Your task to perform on an android device: Show me popular games on the Play Store Image 0: 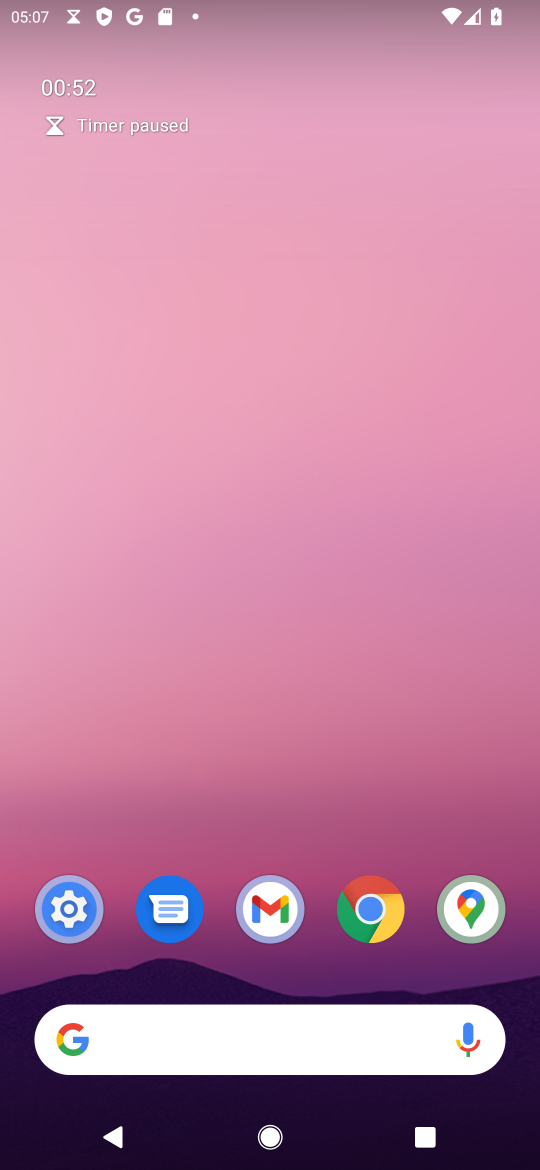
Step 0: drag from (254, 1042) to (460, 235)
Your task to perform on an android device: Show me popular games on the Play Store Image 1: 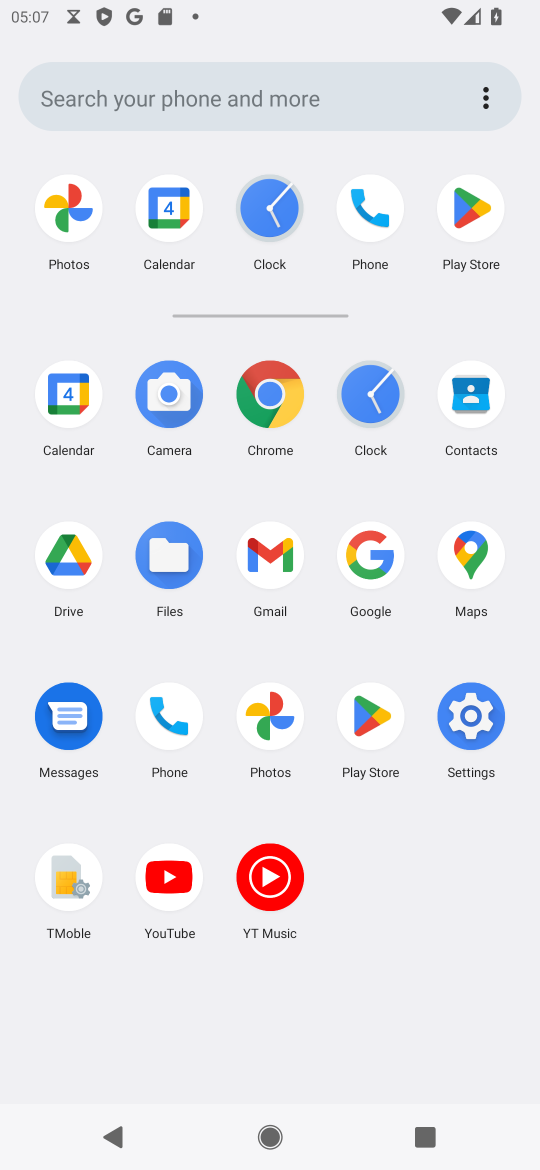
Step 1: click (371, 717)
Your task to perform on an android device: Show me popular games on the Play Store Image 2: 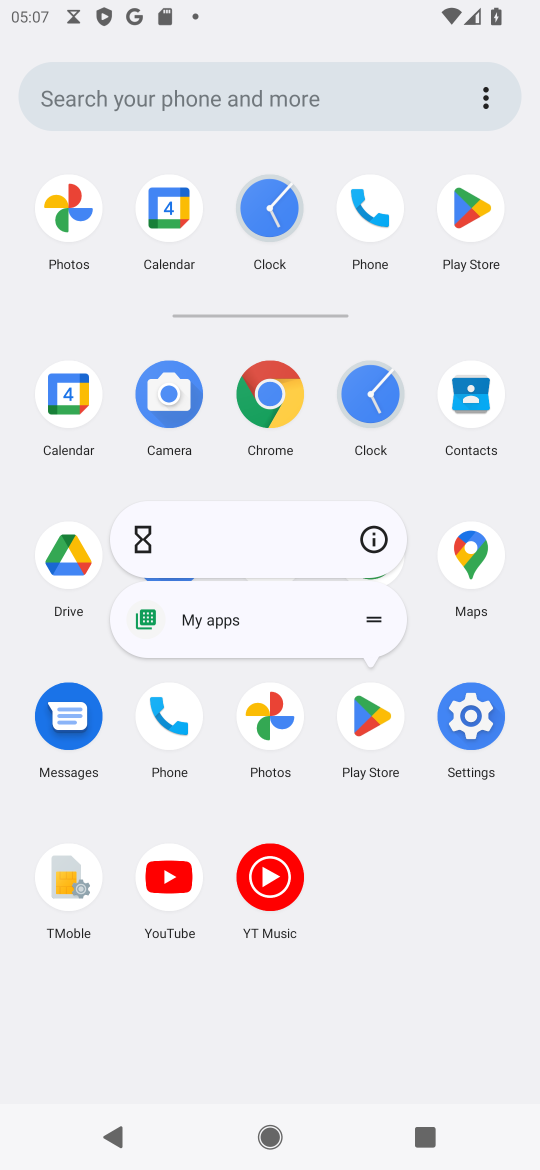
Step 2: click (362, 727)
Your task to perform on an android device: Show me popular games on the Play Store Image 3: 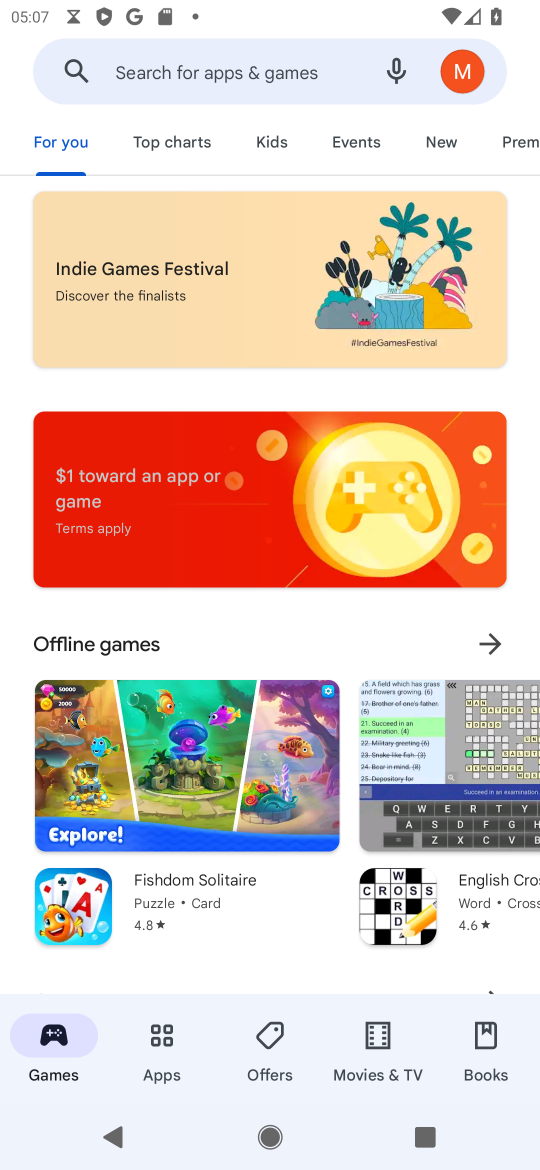
Step 3: task complete